Your task to perform on an android device: Open Google Chrome Image 0: 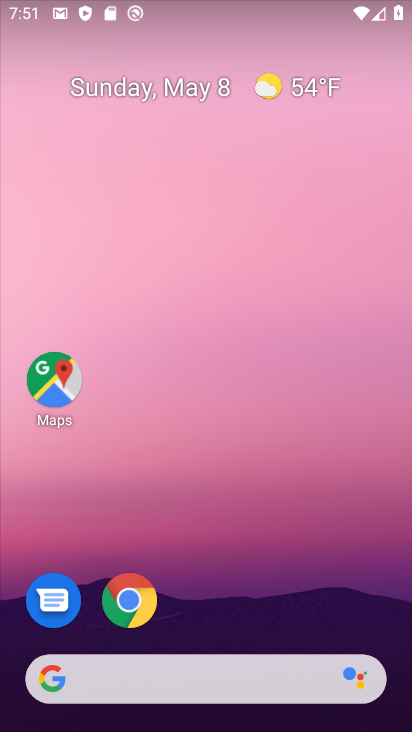
Step 0: drag from (278, 568) to (322, 39)
Your task to perform on an android device: Open Google Chrome Image 1: 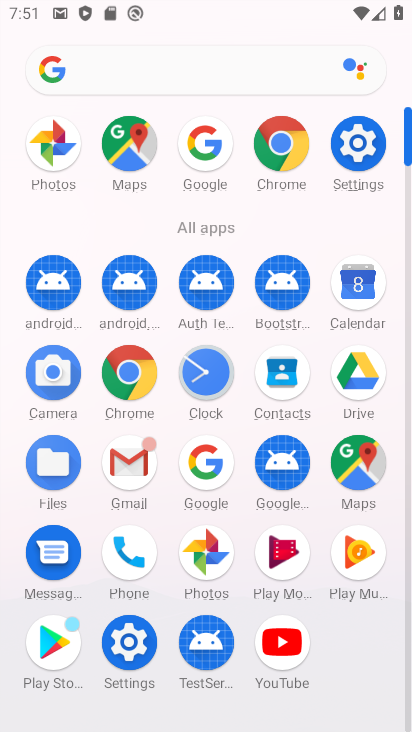
Step 1: click (278, 163)
Your task to perform on an android device: Open Google Chrome Image 2: 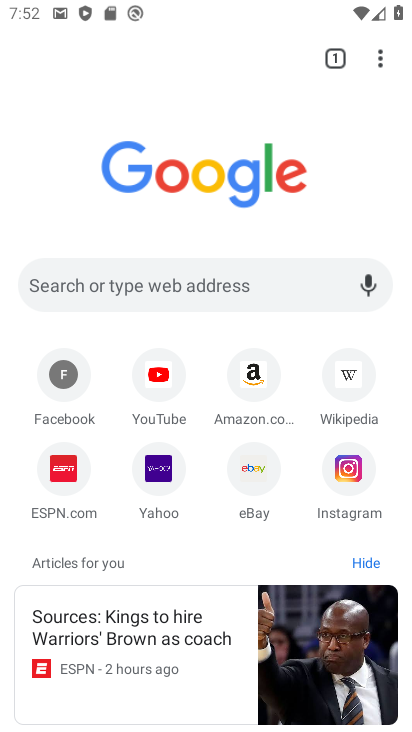
Step 2: task complete